Your task to perform on an android device: find photos in the google photos app Image 0: 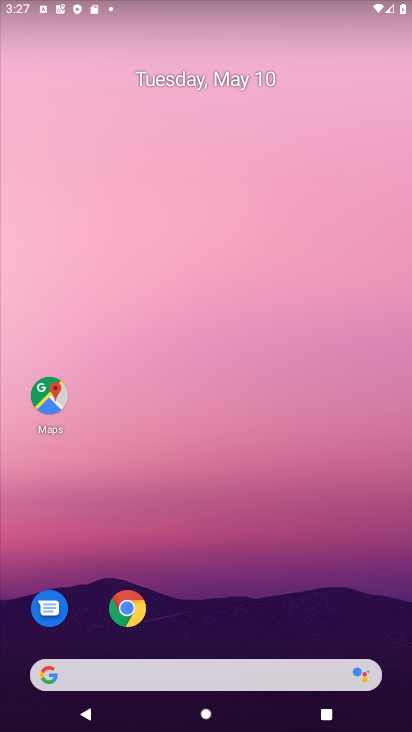
Step 0: drag from (368, 621) to (233, 120)
Your task to perform on an android device: find photos in the google photos app Image 1: 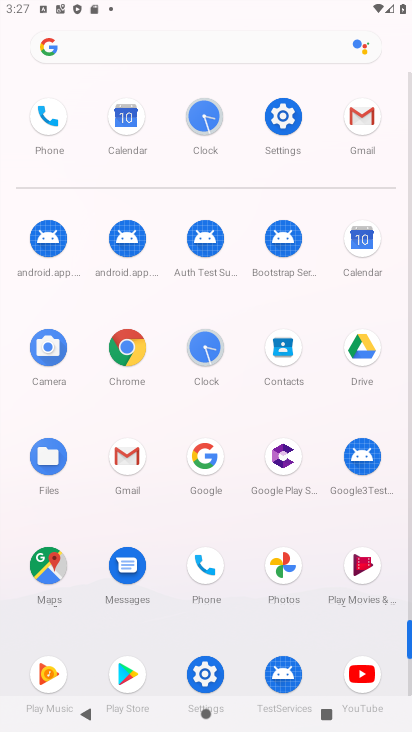
Step 1: click (283, 563)
Your task to perform on an android device: find photos in the google photos app Image 2: 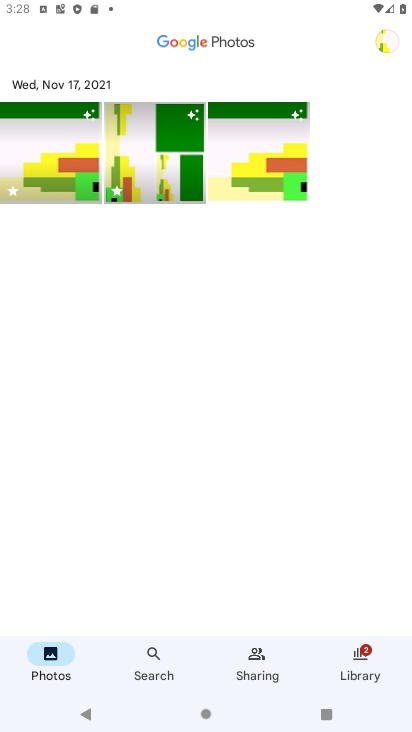
Step 2: task complete